Your task to perform on an android device: Go to settings Image 0: 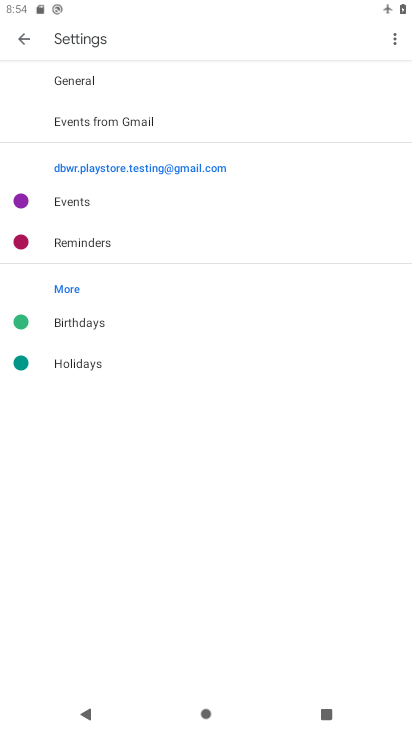
Step 0: press home button
Your task to perform on an android device: Go to settings Image 1: 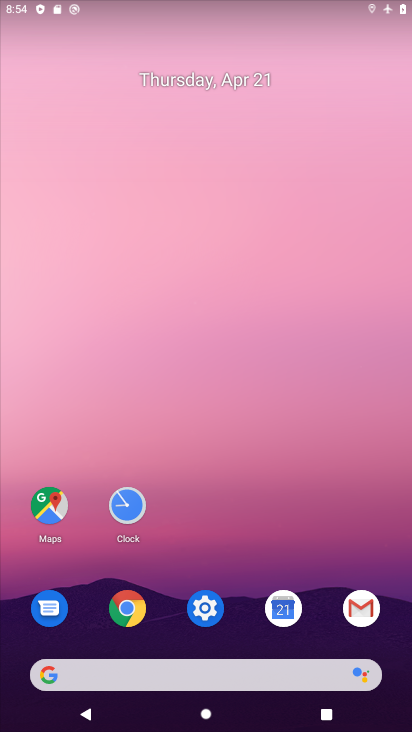
Step 1: click (202, 611)
Your task to perform on an android device: Go to settings Image 2: 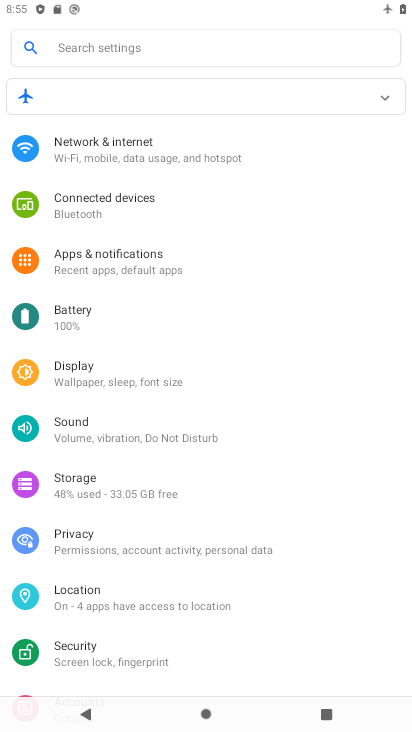
Step 2: task complete